Your task to perform on an android device: What is the news today? Image 0: 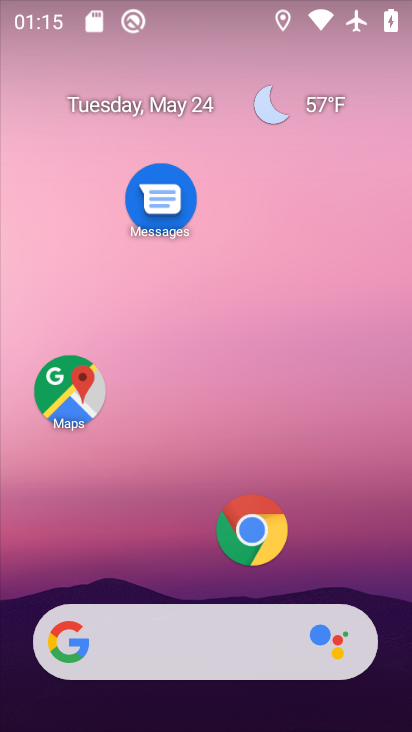
Step 0: click (133, 664)
Your task to perform on an android device: What is the news today? Image 1: 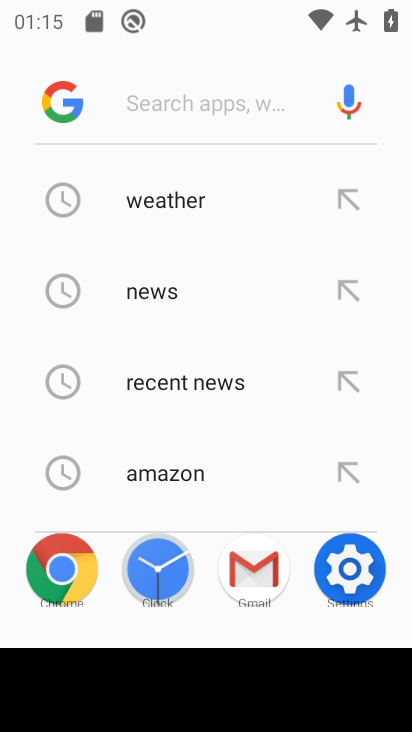
Step 1: type "what is the news today"
Your task to perform on an android device: What is the news today? Image 2: 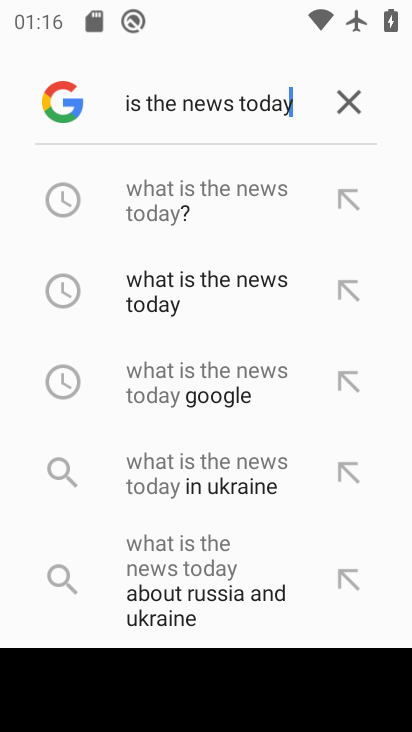
Step 2: click (145, 175)
Your task to perform on an android device: What is the news today? Image 3: 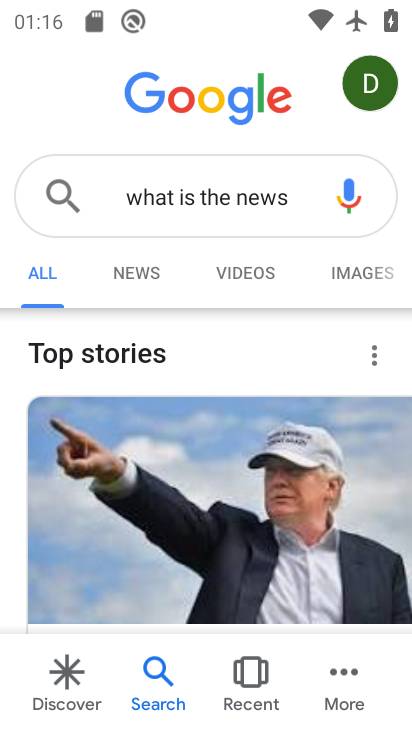
Step 3: click (129, 265)
Your task to perform on an android device: What is the news today? Image 4: 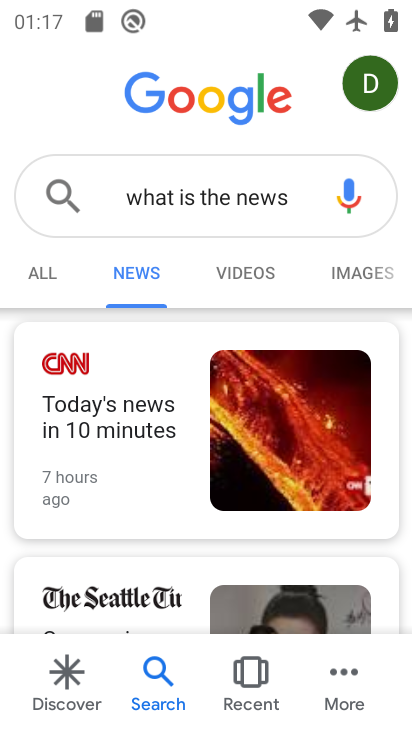
Step 4: task complete